Your task to perform on an android device: Go to Google Image 0: 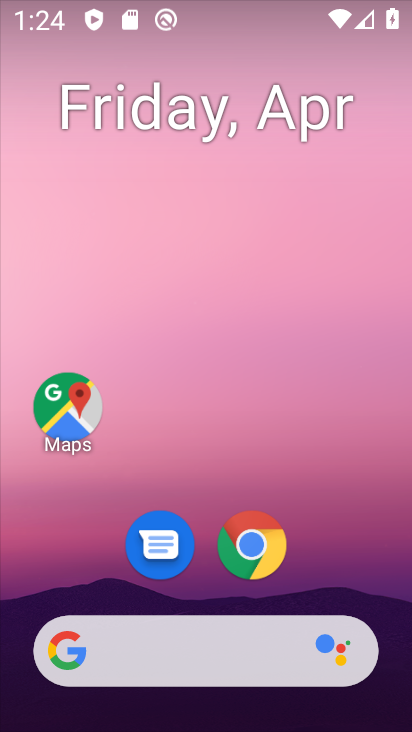
Step 0: drag from (344, 547) to (293, 193)
Your task to perform on an android device: Go to Google Image 1: 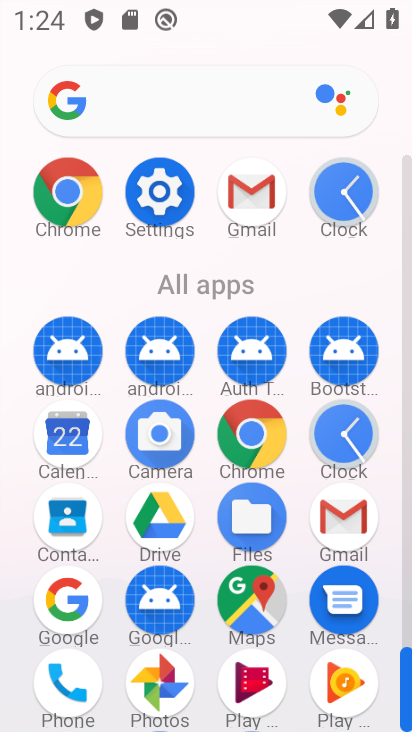
Step 1: click (58, 593)
Your task to perform on an android device: Go to Google Image 2: 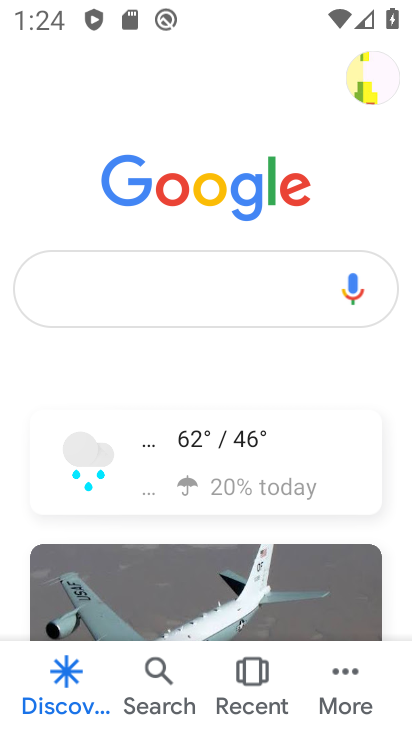
Step 2: task complete